Your task to perform on an android device: make emails show in primary in the gmail app Image 0: 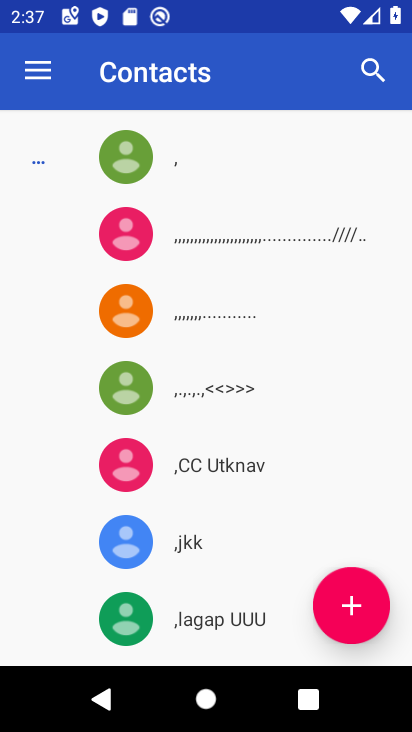
Step 0: press back button
Your task to perform on an android device: make emails show in primary in the gmail app Image 1: 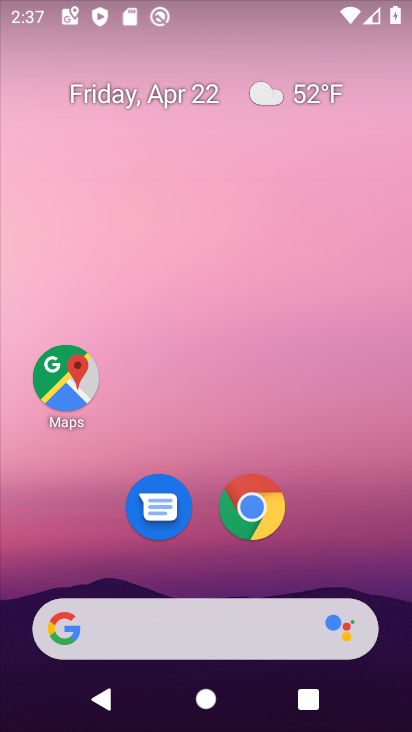
Step 1: drag from (210, 592) to (308, 49)
Your task to perform on an android device: make emails show in primary in the gmail app Image 2: 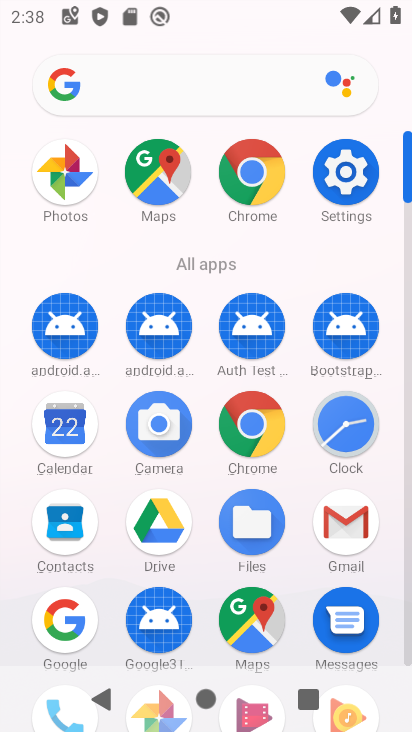
Step 2: click (345, 524)
Your task to perform on an android device: make emails show in primary in the gmail app Image 3: 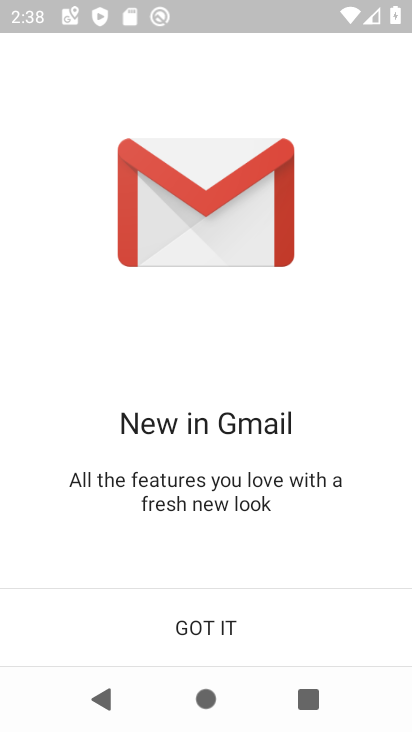
Step 3: click (194, 602)
Your task to perform on an android device: make emails show in primary in the gmail app Image 4: 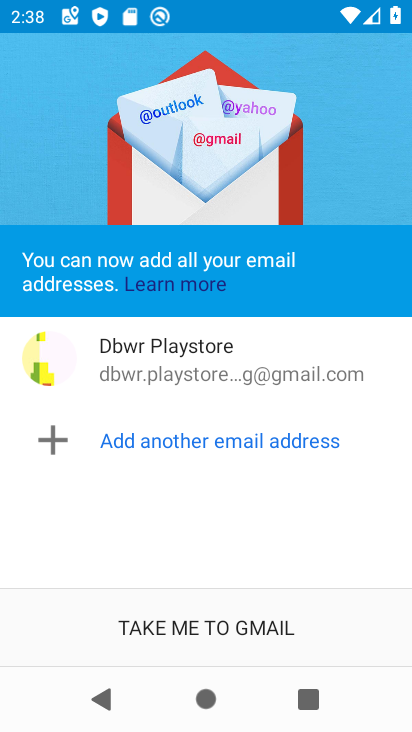
Step 4: click (235, 628)
Your task to perform on an android device: make emails show in primary in the gmail app Image 5: 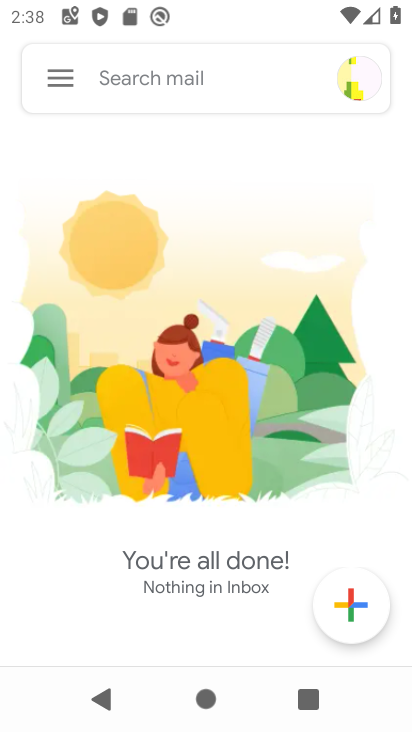
Step 5: click (60, 87)
Your task to perform on an android device: make emails show in primary in the gmail app Image 6: 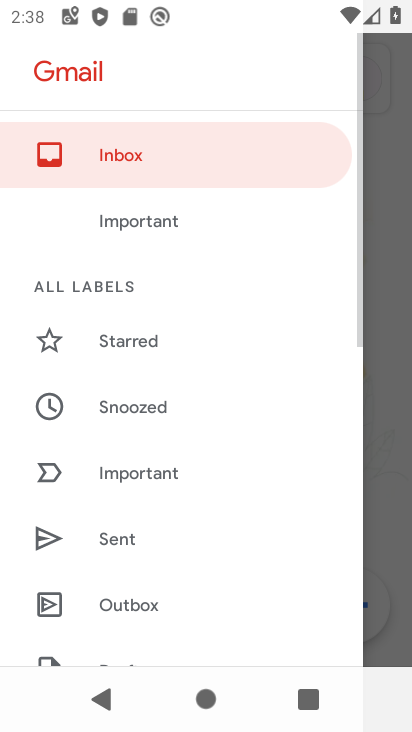
Step 6: drag from (143, 579) to (244, 63)
Your task to perform on an android device: make emails show in primary in the gmail app Image 7: 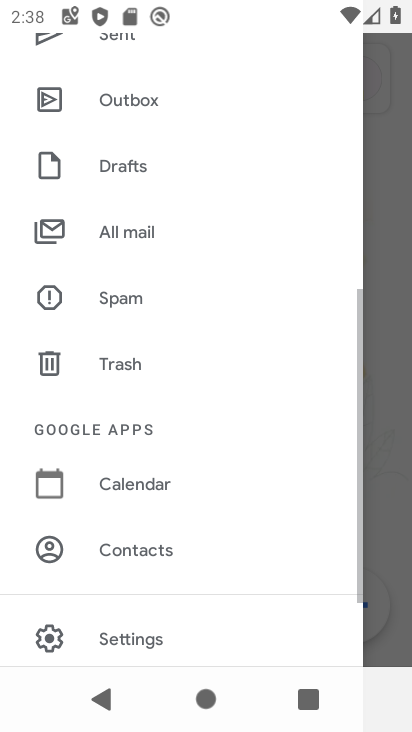
Step 7: drag from (119, 593) to (186, 219)
Your task to perform on an android device: make emails show in primary in the gmail app Image 8: 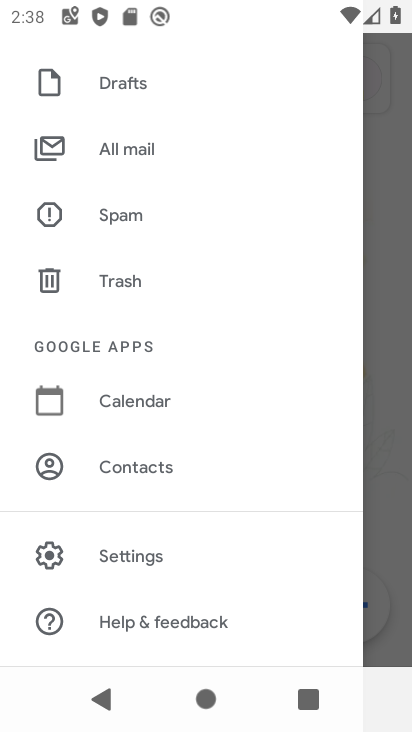
Step 8: click (151, 565)
Your task to perform on an android device: make emails show in primary in the gmail app Image 9: 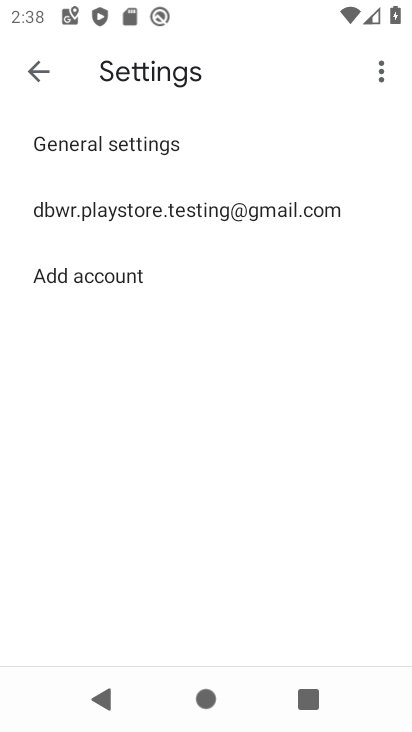
Step 9: click (224, 207)
Your task to perform on an android device: make emails show in primary in the gmail app Image 10: 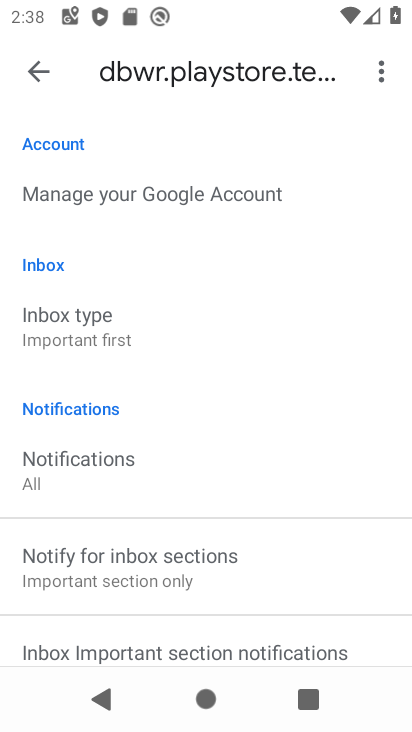
Step 10: click (139, 334)
Your task to perform on an android device: make emails show in primary in the gmail app Image 11: 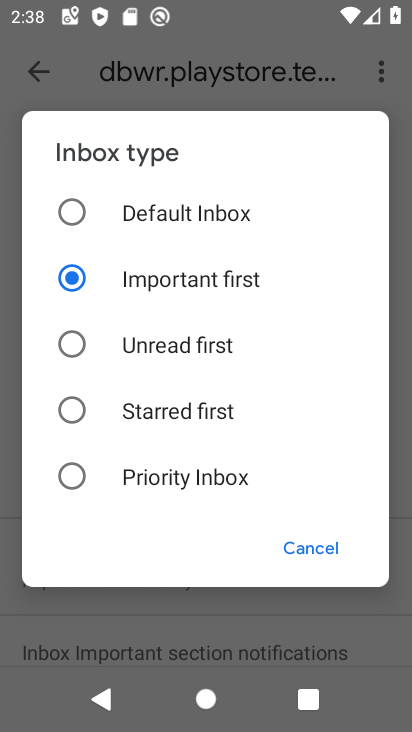
Step 11: click (200, 212)
Your task to perform on an android device: make emails show in primary in the gmail app Image 12: 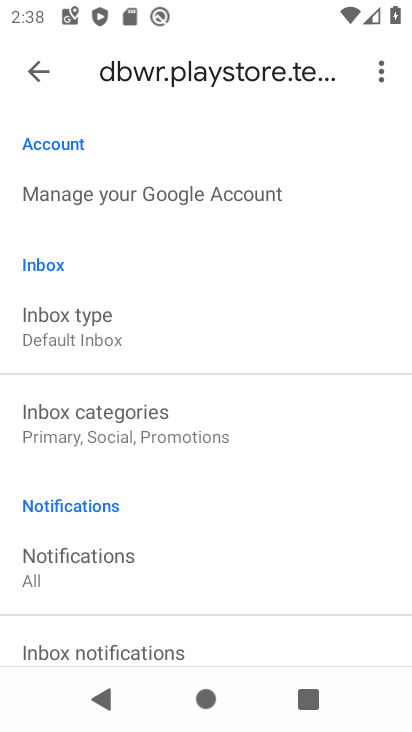
Step 12: click (179, 426)
Your task to perform on an android device: make emails show in primary in the gmail app Image 13: 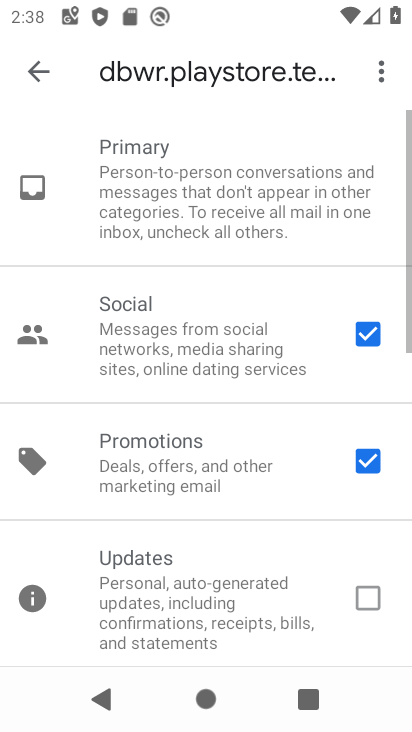
Step 13: drag from (176, 604) to (229, 203)
Your task to perform on an android device: make emails show in primary in the gmail app Image 14: 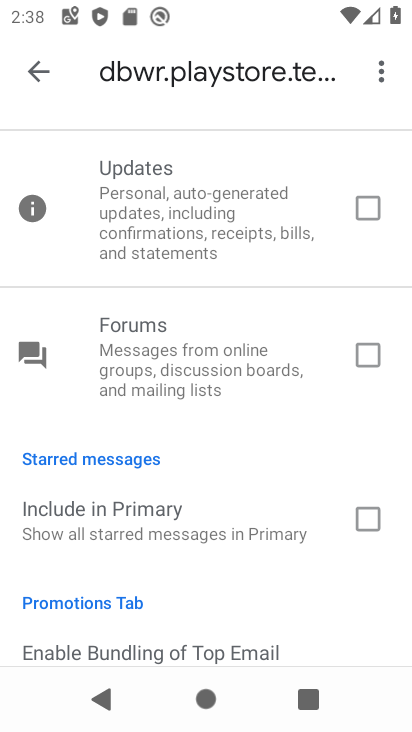
Step 14: click (372, 522)
Your task to perform on an android device: make emails show in primary in the gmail app Image 15: 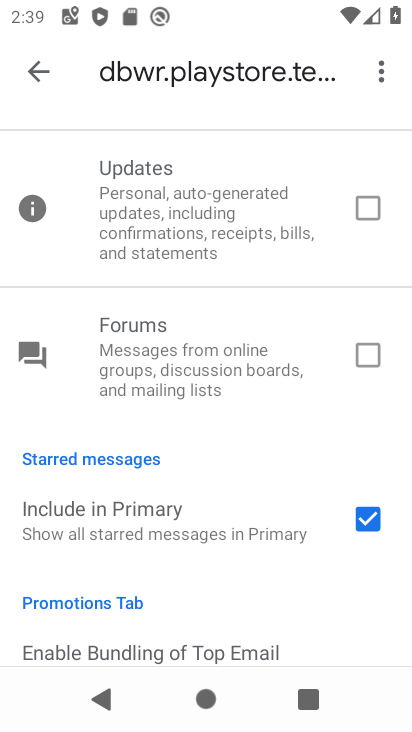
Step 15: task complete